Your task to perform on an android device: Is it going to rain tomorrow? Image 0: 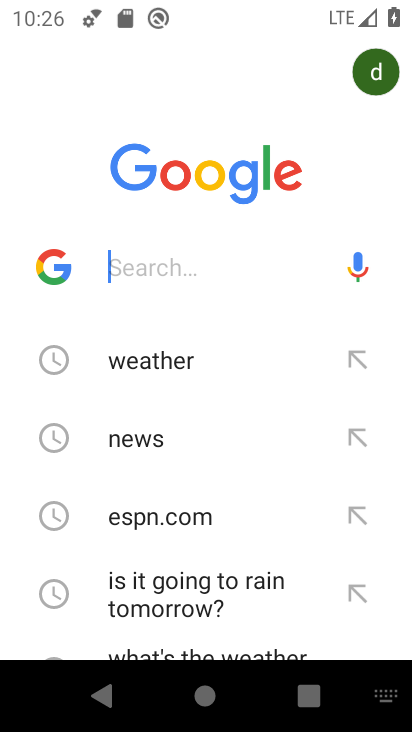
Step 0: press back button
Your task to perform on an android device: Is it going to rain tomorrow? Image 1: 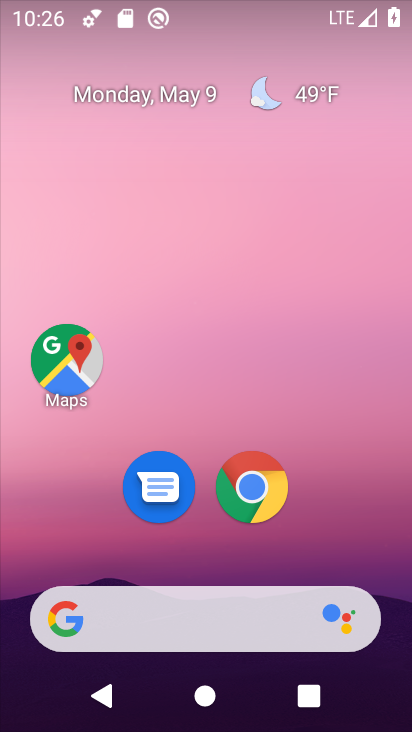
Step 1: click (243, 492)
Your task to perform on an android device: Is it going to rain tomorrow? Image 2: 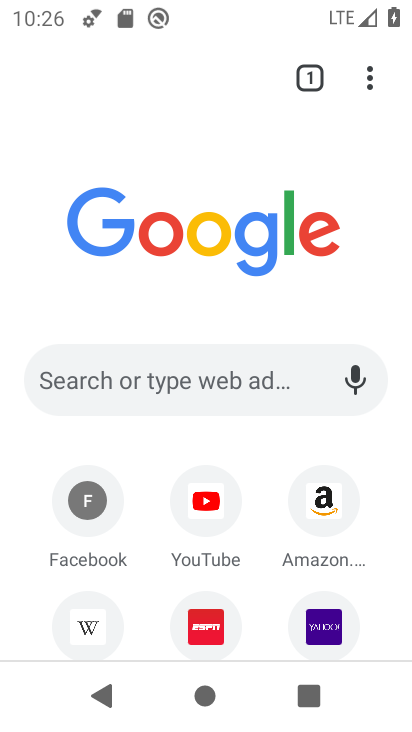
Step 2: click (121, 362)
Your task to perform on an android device: Is it going to rain tomorrow? Image 3: 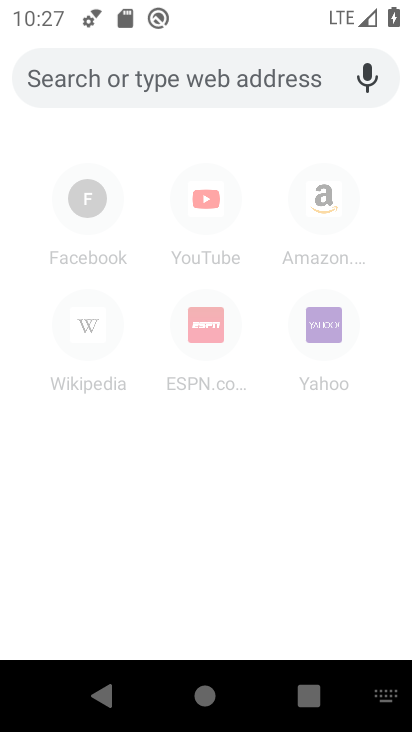
Step 3: type "is it going to rain tomorrow"
Your task to perform on an android device: Is it going to rain tomorrow? Image 4: 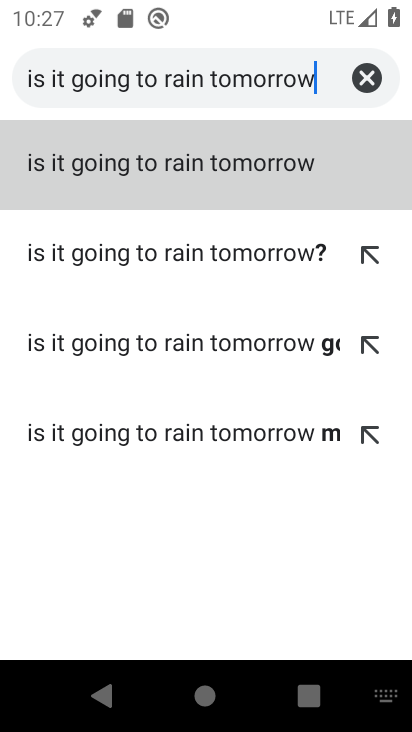
Step 4: click (198, 255)
Your task to perform on an android device: Is it going to rain tomorrow? Image 5: 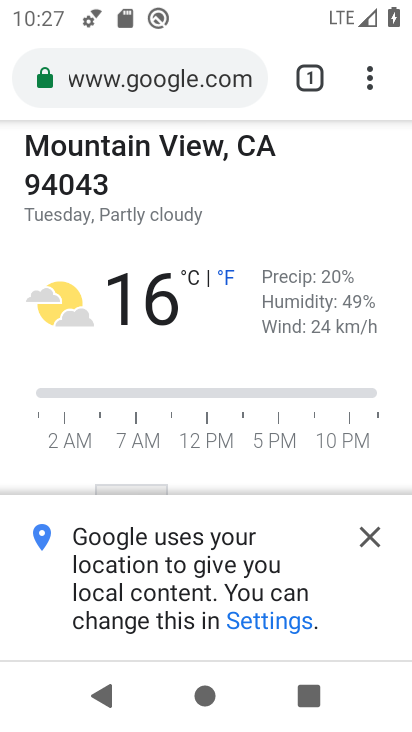
Step 5: click (369, 537)
Your task to perform on an android device: Is it going to rain tomorrow? Image 6: 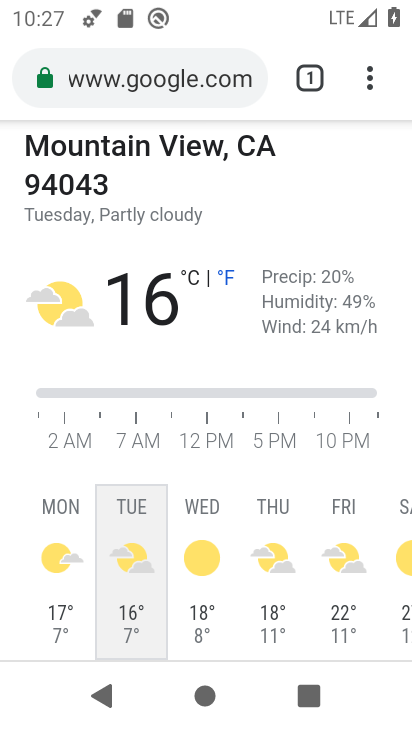
Step 6: task complete